Your task to perform on an android device: turn off airplane mode Image 0: 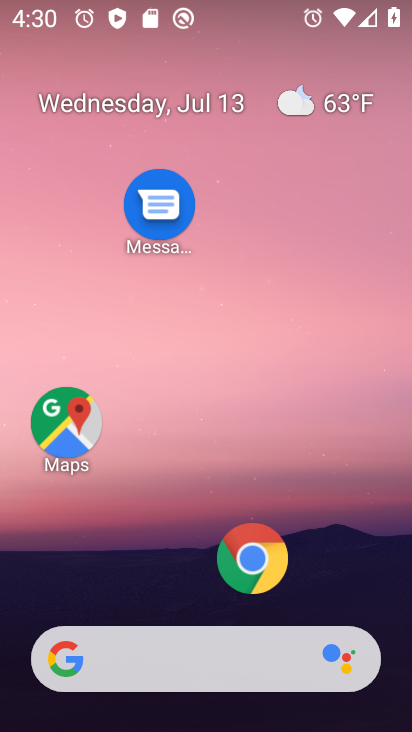
Step 0: drag from (146, 1) to (191, 495)
Your task to perform on an android device: turn off airplane mode Image 1: 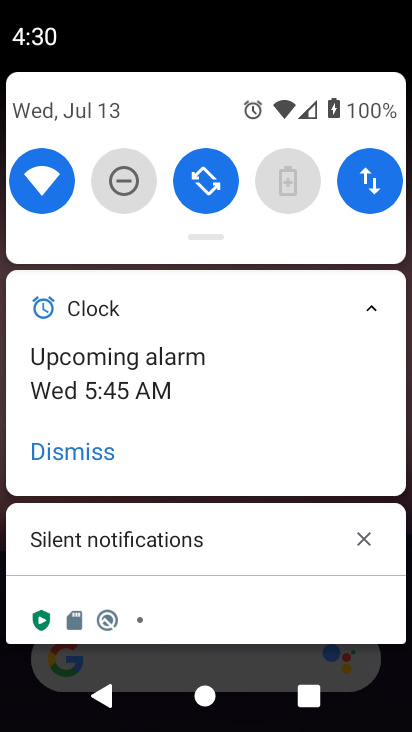
Step 1: task complete